Your task to perform on an android device: Set the phone to "Do not disturb". Image 0: 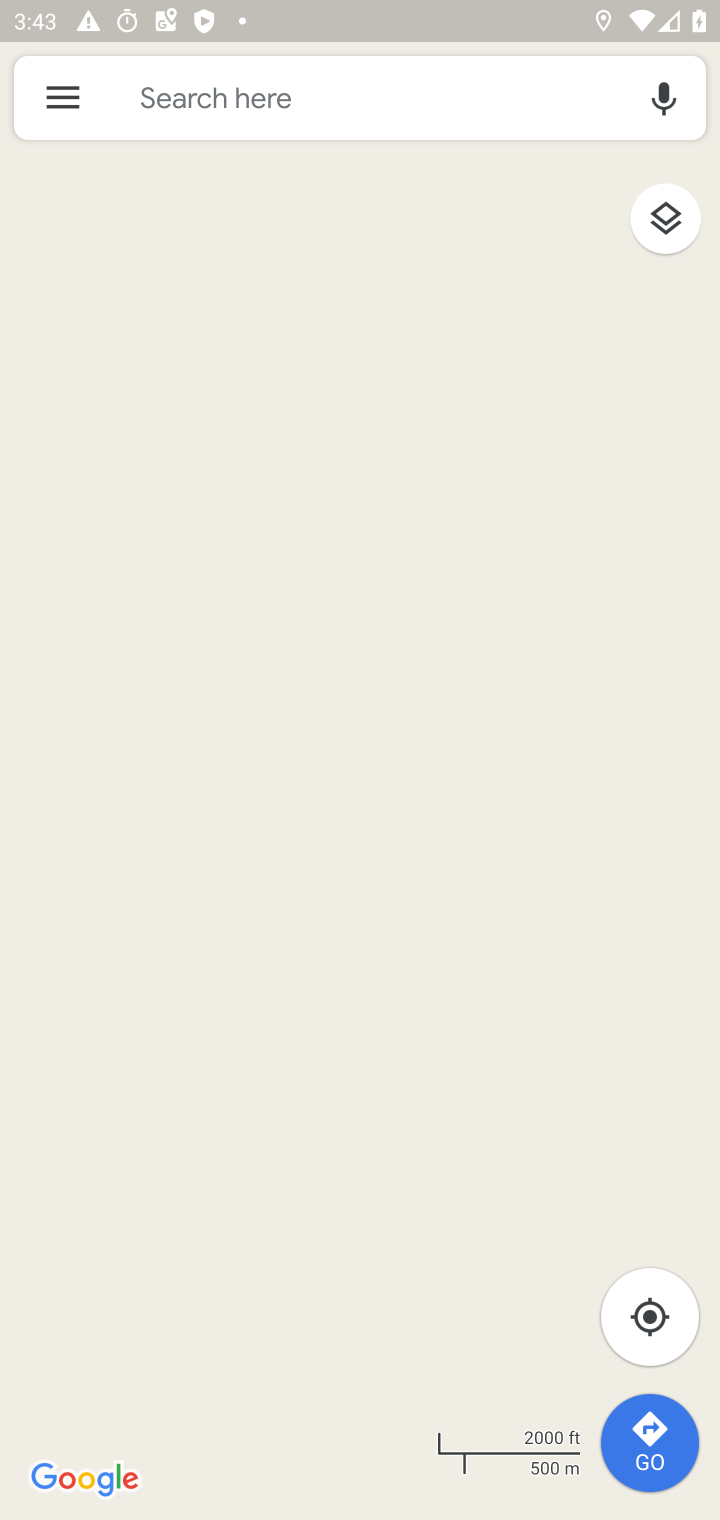
Step 0: press back button
Your task to perform on an android device: Set the phone to "Do not disturb". Image 1: 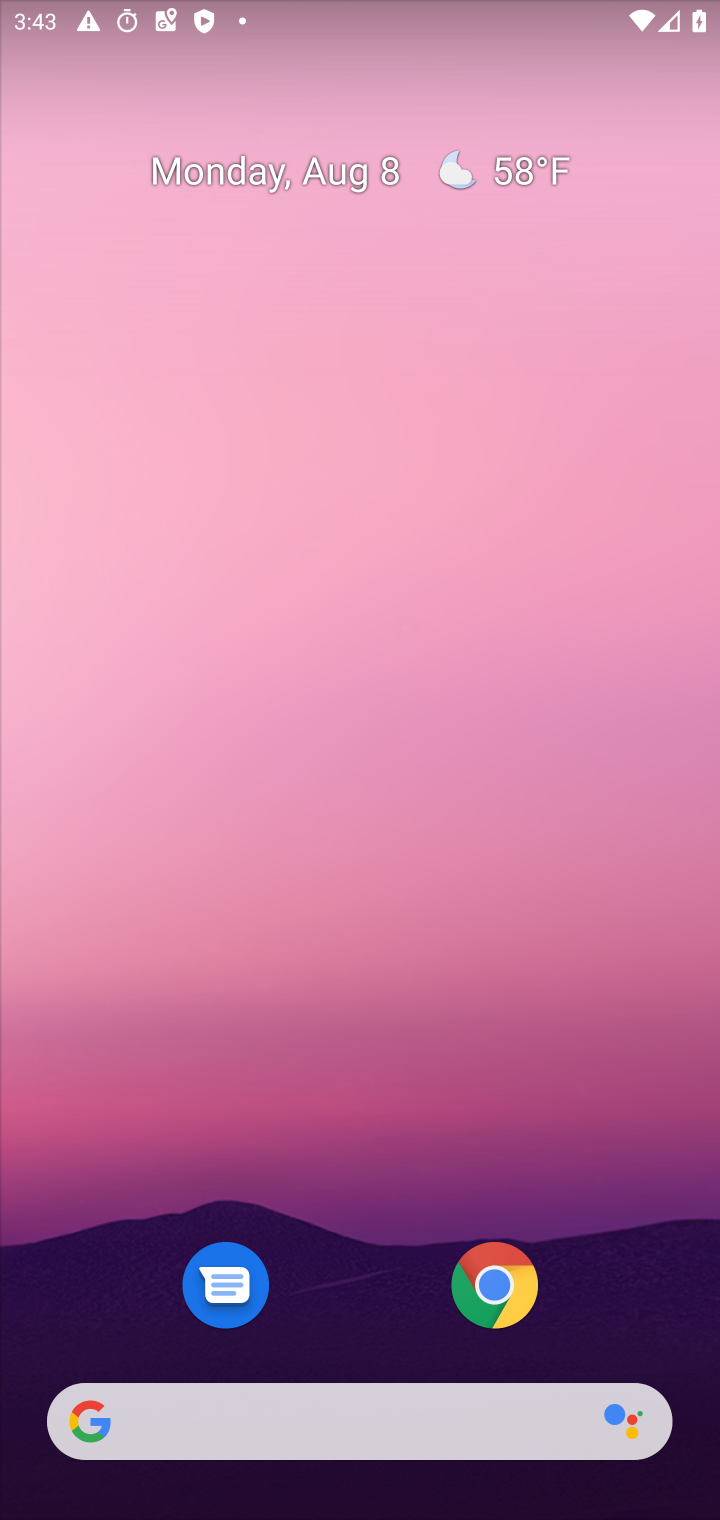
Step 1: drag from (289, 61) to (314, 1442)
Your task to perform on an android device: Set the phone to "Do not disturb". Image 2: 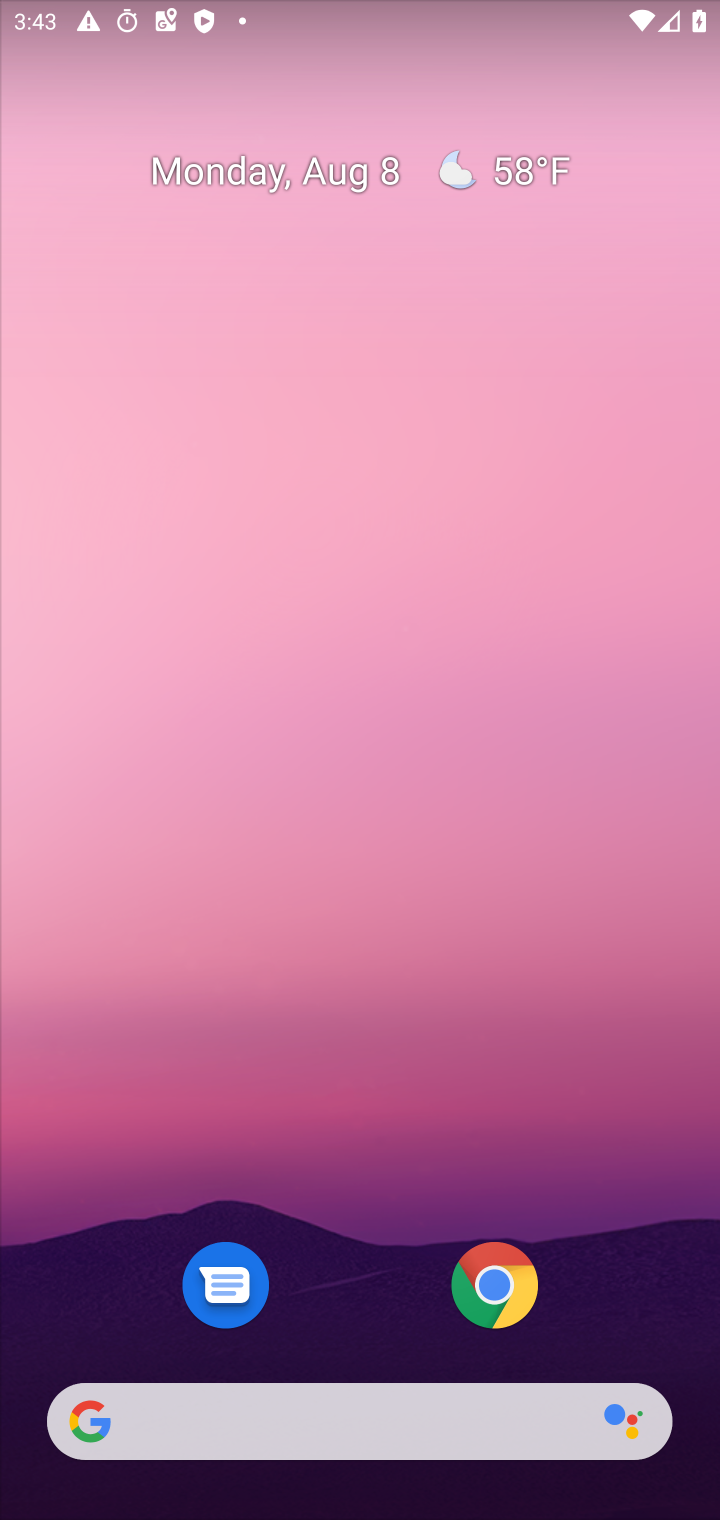
Step 2: drag from (155, 974) to (218, 1277)
Your task to perform on an android device: Set the phone to "Do not disturb". Image 3: 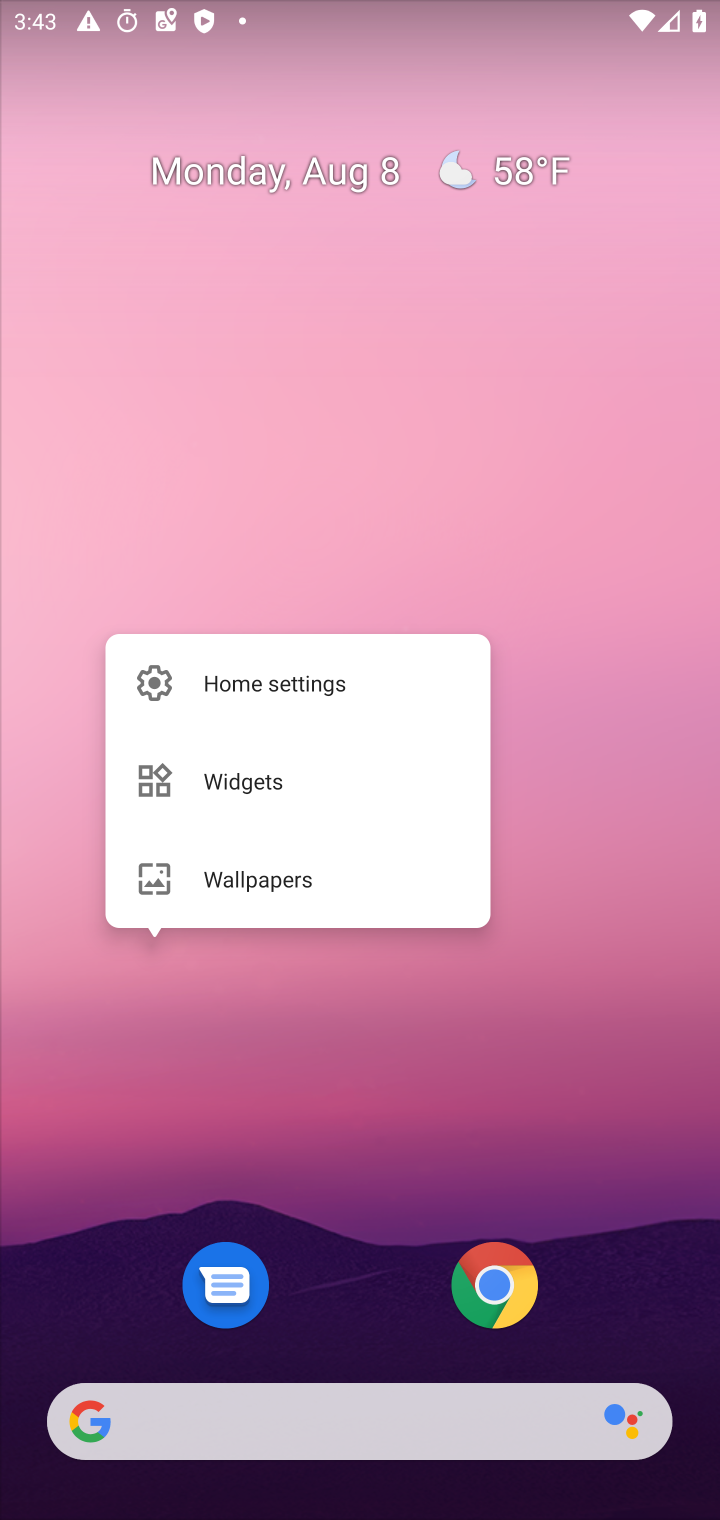
Step 3: drag from (682, 4) to (554, 1343)
Your task to perform on an android device: Set the phone to "Do not disturb". Image 4: 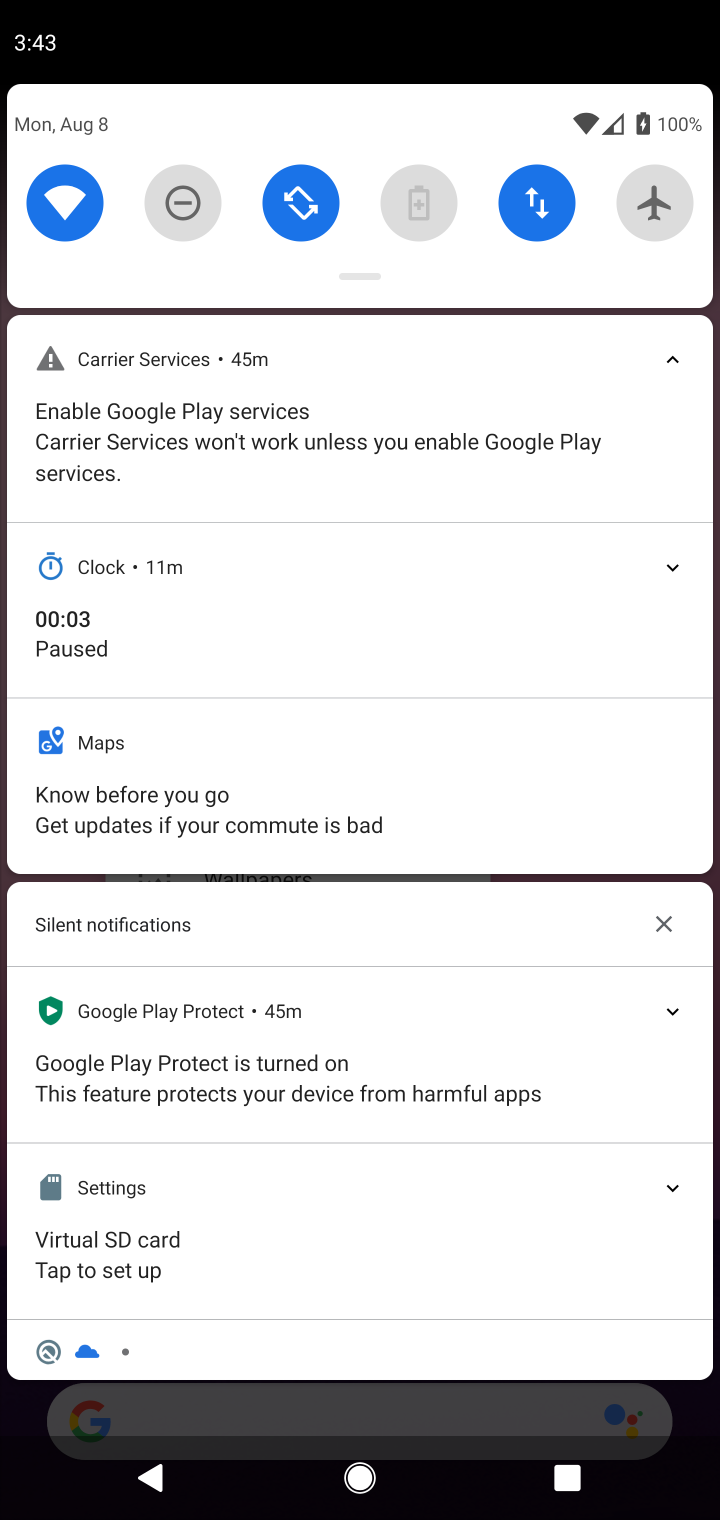
Step 4: click (174, 191)
Your task to perform on an android device: Set the phone to "Do not disturb". Image 5: 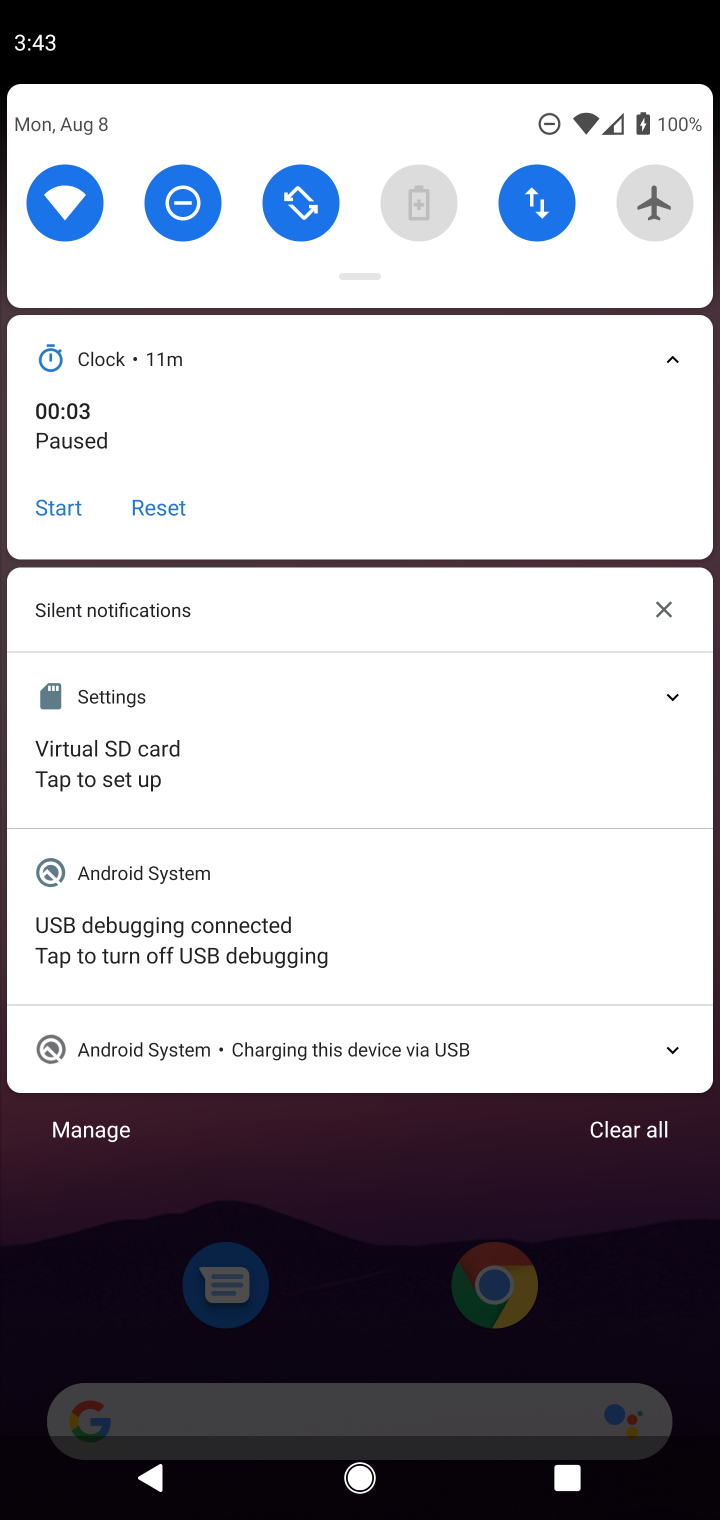
Step 5: task complete